Your task to perform on an android device: open a new tab in the chrome app Image 0: 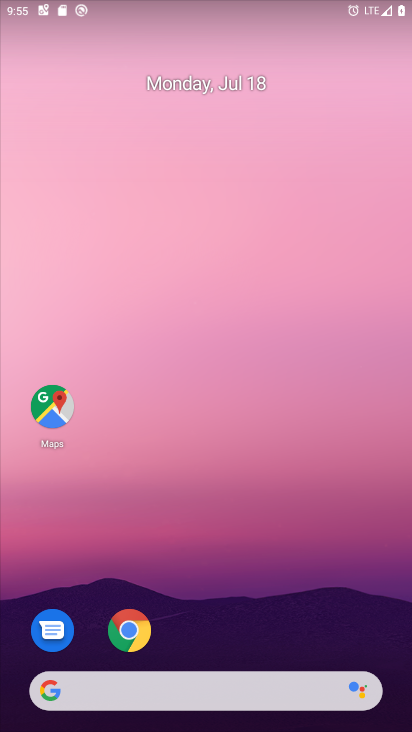
Step 0: click (126, 641)
Your task to perform on an android device: open a new tab in the chrome app Image 1: 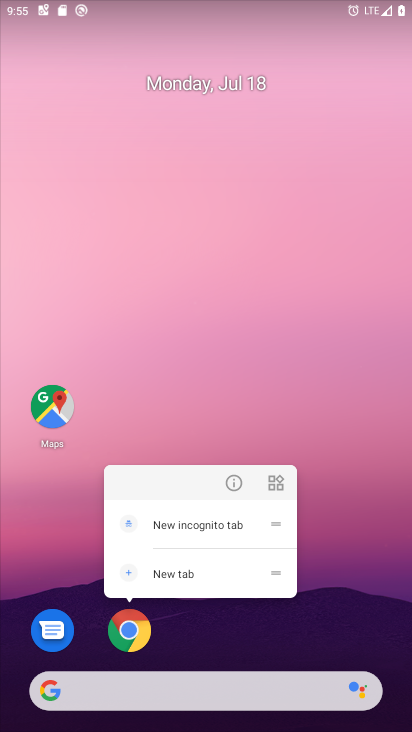
Step 1: click (126, 641)
Your task to perform on an android device: open a new tab in the chrome app Image 2: 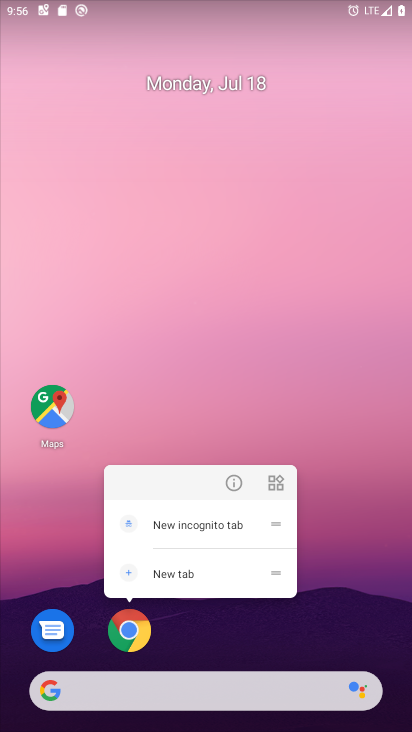
Step 2: click (138, 635)
Your task to perform on an android device: open a new tab in the chrome app Image 3: 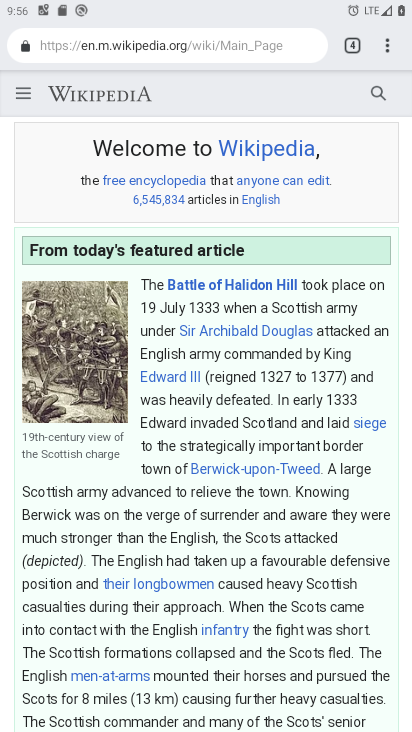
Step 3: click (347, 39)
Your task to perform on an android device: open a new tab in the chrome app Image 4: 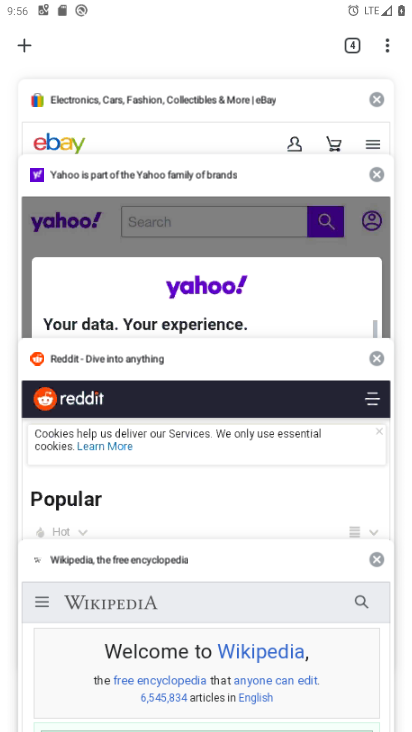
Step 4: click (21, 44)
Your task to perform on an android device: open a new tab in the chrome app Image 5: 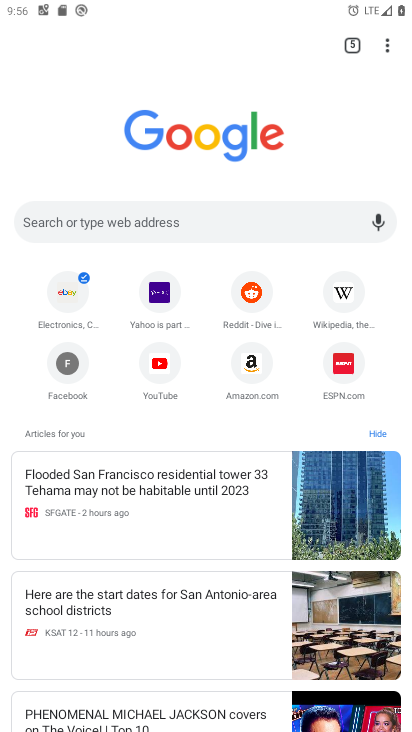
Step 5: task complete